Your task to perform on an android device: toggle improve location accuracy Image 0: 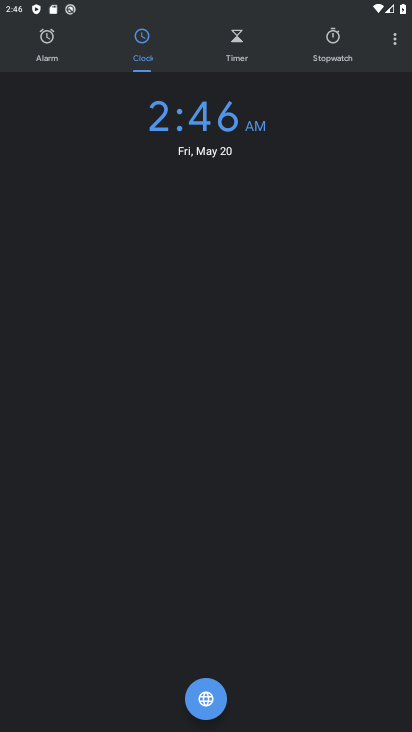
Step 0: press back button
Your task to perform on an android device: toggle improve location accuracy Image 1: 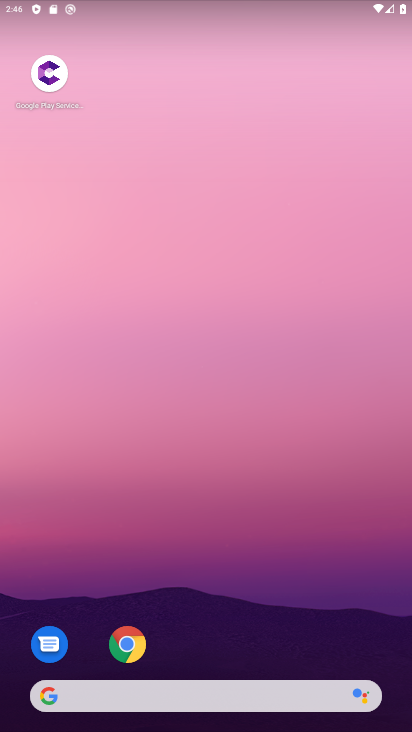
Step 1: drag from (249, 592) to (153, 12)
Your task to perform on an android device: toggle improve location accuracy Image 2: 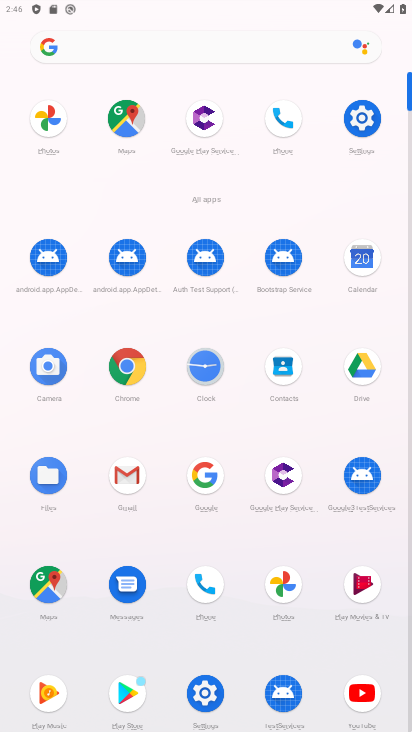
Step 2: click (362, 117)
Your task to perform on an android device: toggle improve location accuracy Image 3: 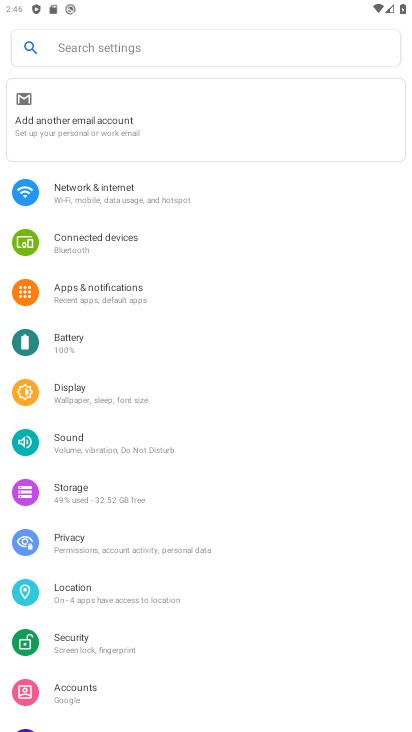
Step 3: click (83, 590)
Your task to perform on an android device: toggle improve location accuracy Image 4: 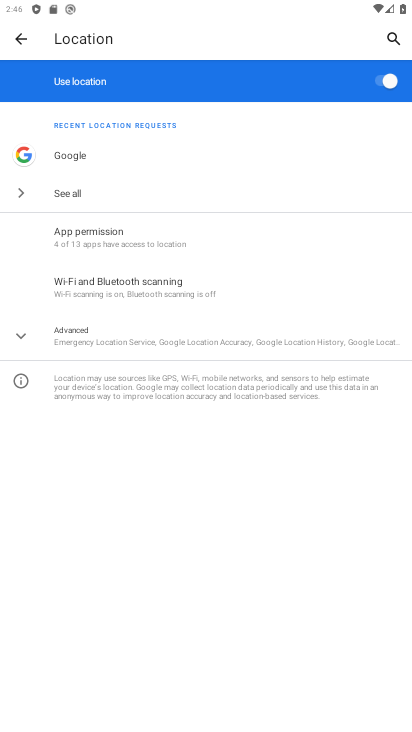
Step 4: click (161, 341)
Your task to perform on an android device: toggle improve location accuracy Image 5: 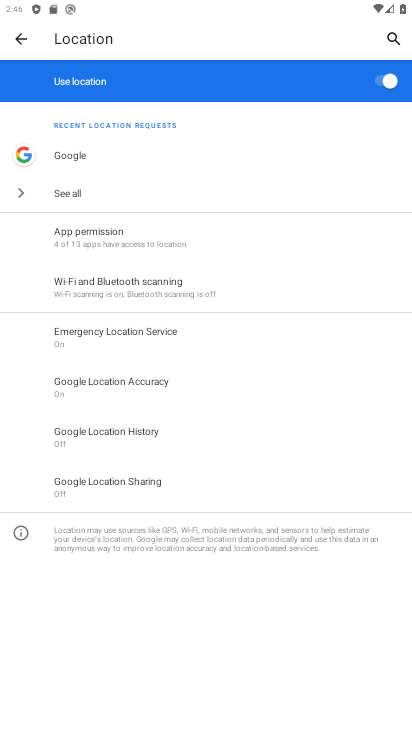
Step 5: click (164, 385)
Your task to perform on an android device: toggle improve location accuracy Image 6: 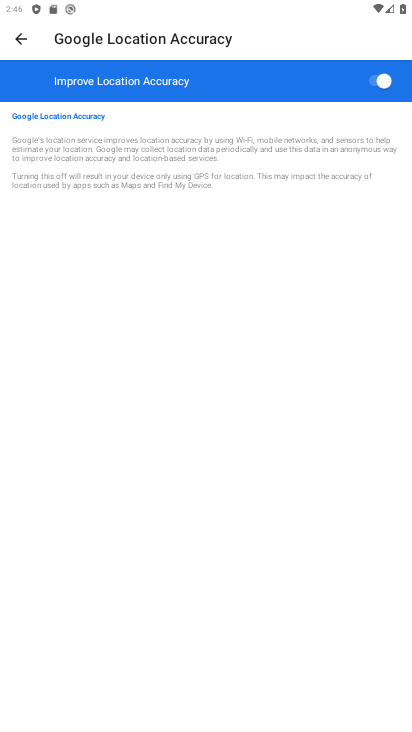
Step 6: click (381, 87)
Your task to perform on an android device: toggle improve location accuracy Image 7: 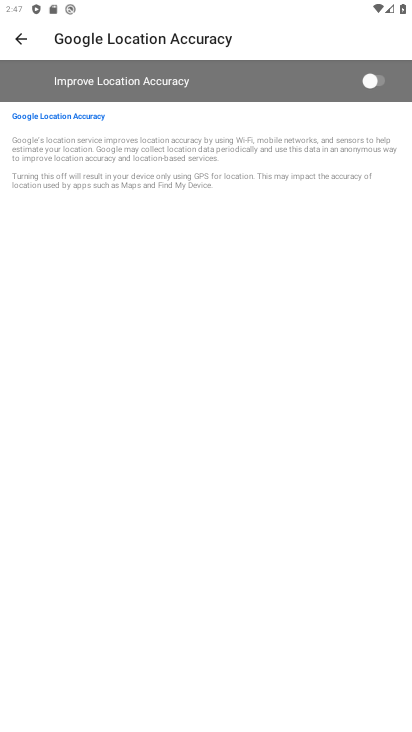
Step 7: task complete